Your task to perform on an android device: turn on data saver in the chrome app Image 0: 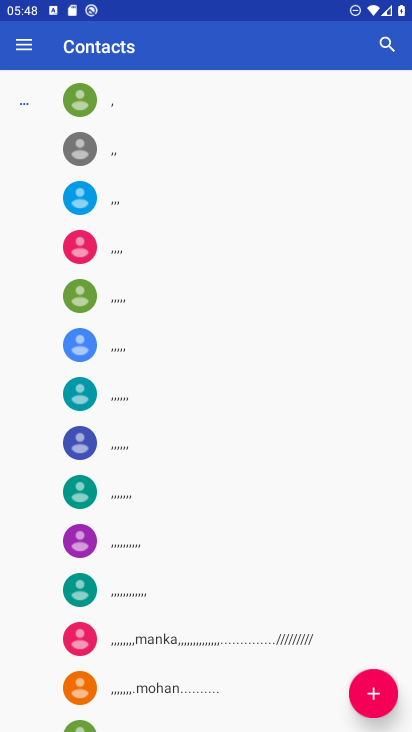
Step 0: press home button
Your task to perform on an android device: turn on data saver in the chrome app Image 1: 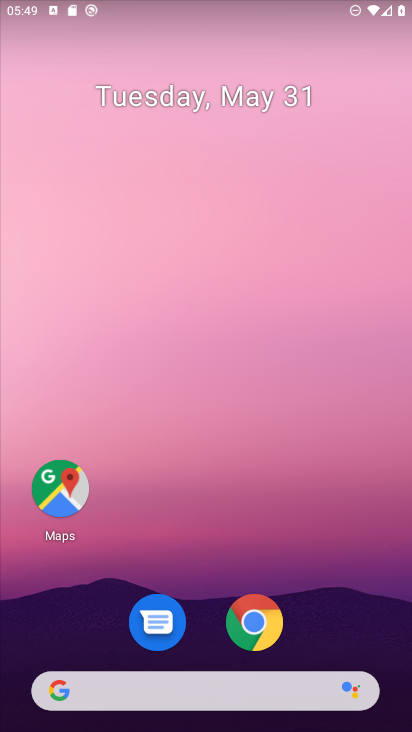
Step 1: drag from (230, 570) to (265, 33)
Your task to perform on an android device: turn on data saver in the chrome app Image 2: 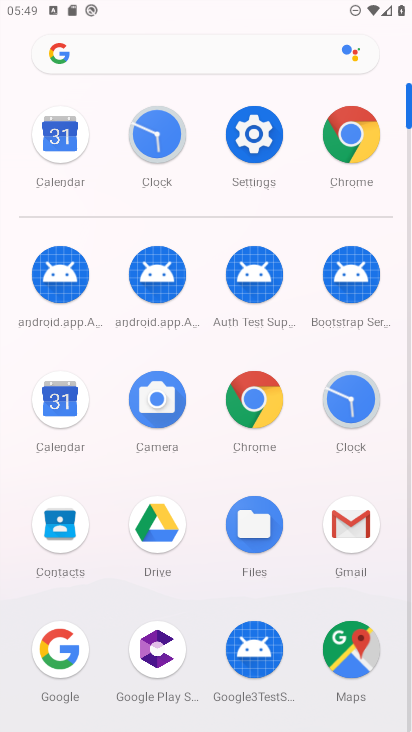
Step 2: click (252, 400)
Your task to perform on an android device: turn on data saver in the chrome app Image 3: 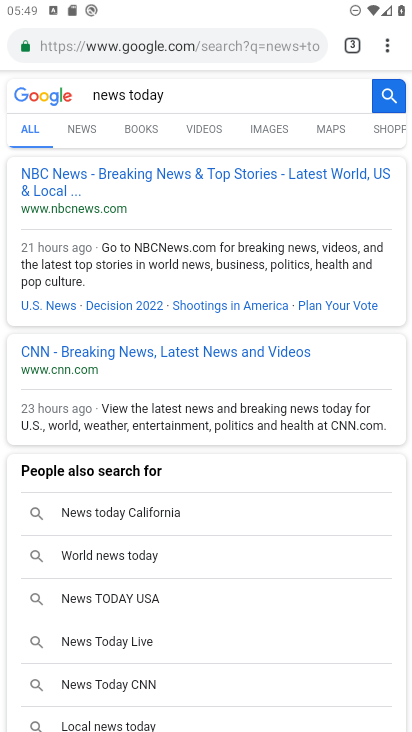
Step 3: drag from (384, 39) to (222, 518)
Your task to perform on an android device: turn on data saver in the chrome app Image 4: 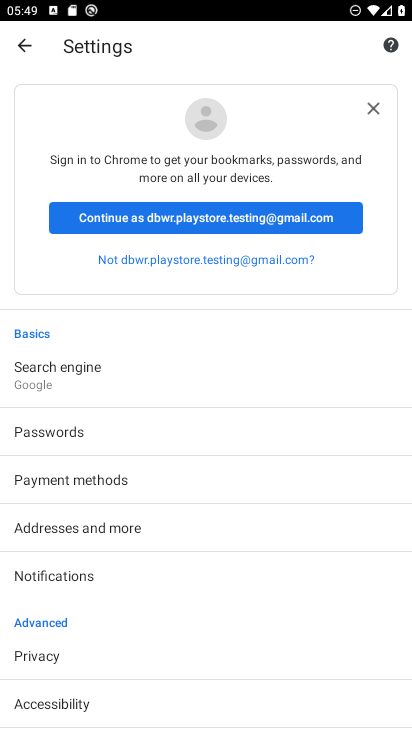
Step 4: drag from (193, 674) to (210, 131)
Your task to perform on an android device: turn on data saver in the chrome app Image 5: 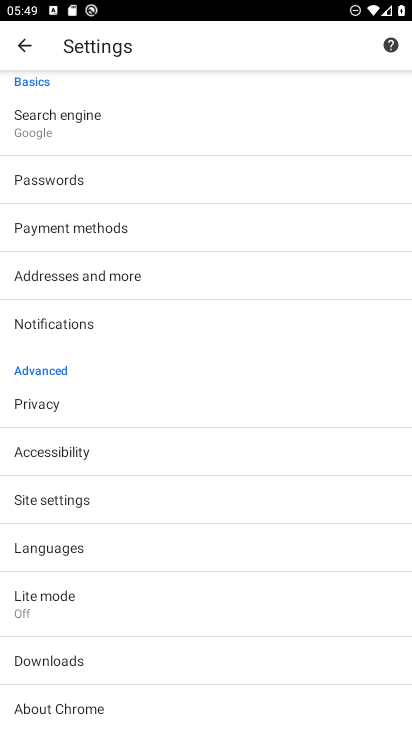
Step 5: click (90, 607)
Your task to perform on an android device: turn on data saver in the chrome app Image 6: 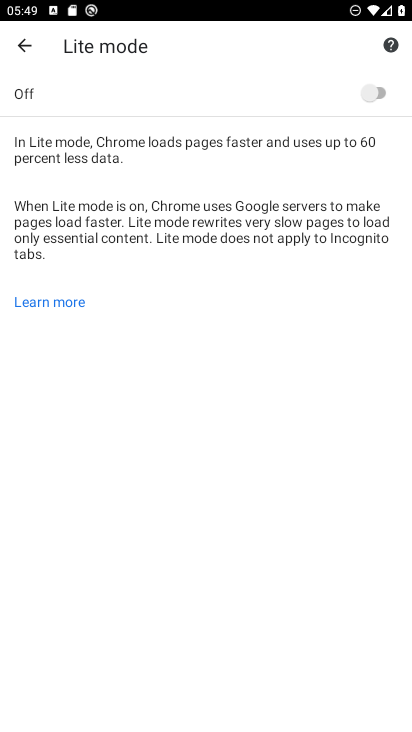
Step 6: click (383, 92)
Your task to perform on an android device: turn on data saver in the chrome app Image 7: 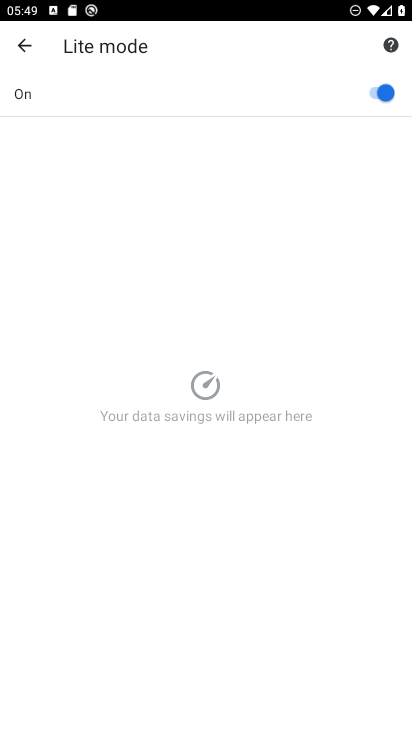
Step 7: task complete